Your task to perform on an android device: turn off airplane mode Image 0: 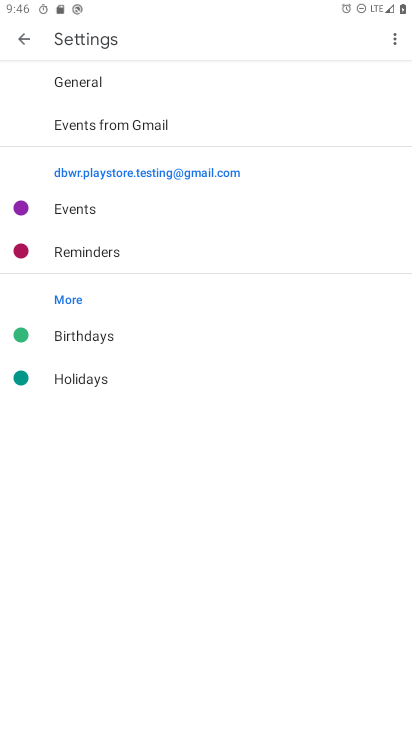
Step 0: drag from (358, 624) to (377, 155)
Your task to perform on an android device: turn off airplane mode Image 1: 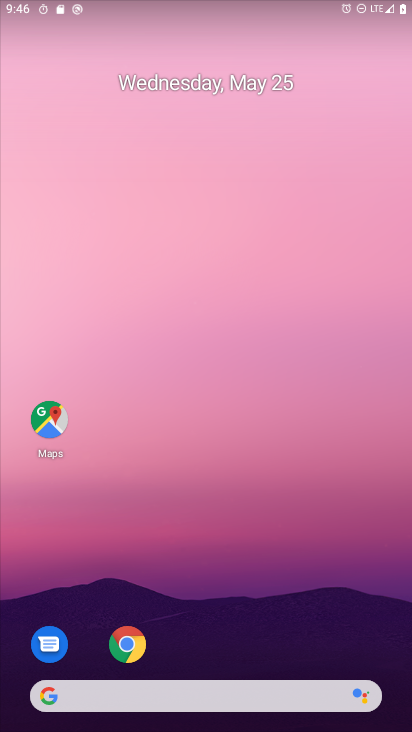
Step 1: task complete